Your task to perform on an android device: Open battery settings Image 0: 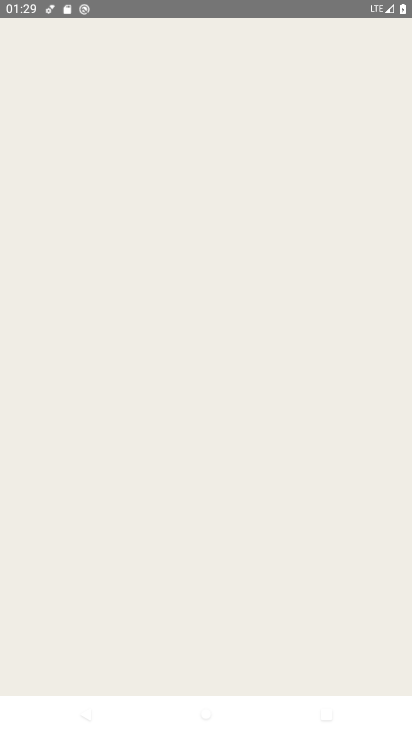
Step 0: click (223, 675)
Your task to perform on an android device: Open battery settings Image 1: 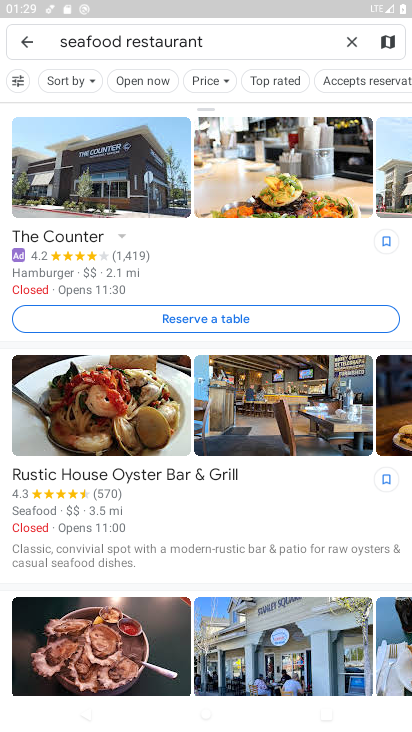
Step 1: press home button
Your task to perform on an android device: Open battery settings Image 2: 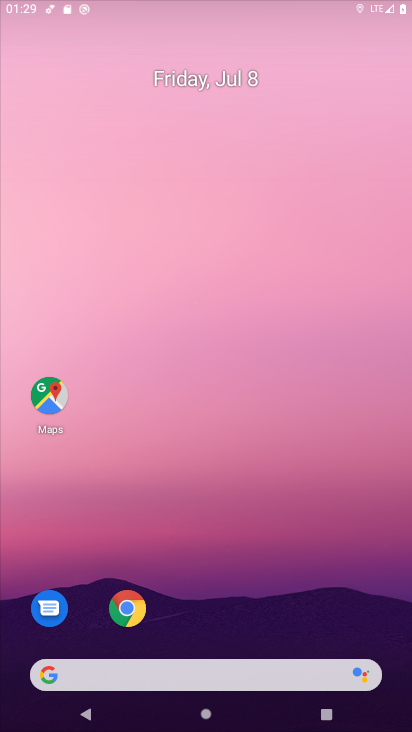
Step 2: drag from (231, 610) to (222, 212)
Your task to perform on an android device: Open battery settings Image 3: 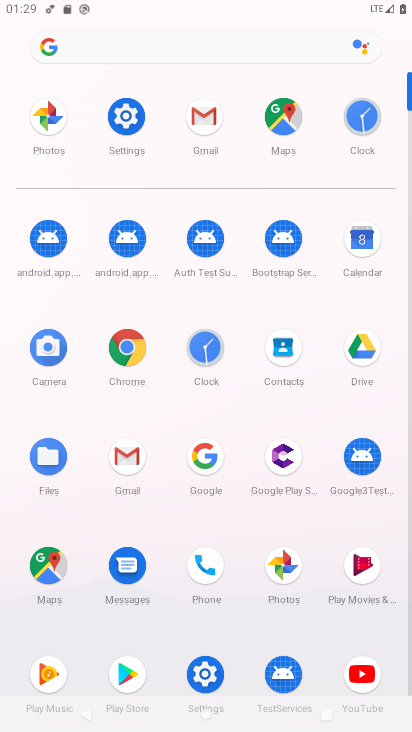
Step 3: click (123, 101)
Your task to perform on an android device: Open battery settings Image 4: 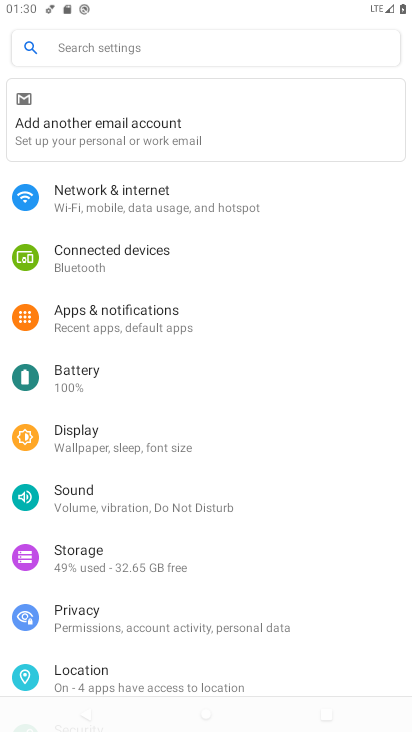
Step 4: click (116, 367)
Your task to perform on an android device: Open battery settings Image 5: 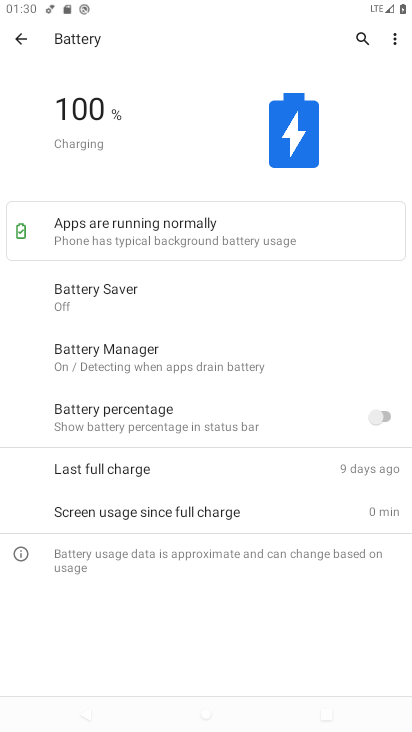
Step 5: task complete